Your task to perform on an android device: Open Google Chrome Image 0: 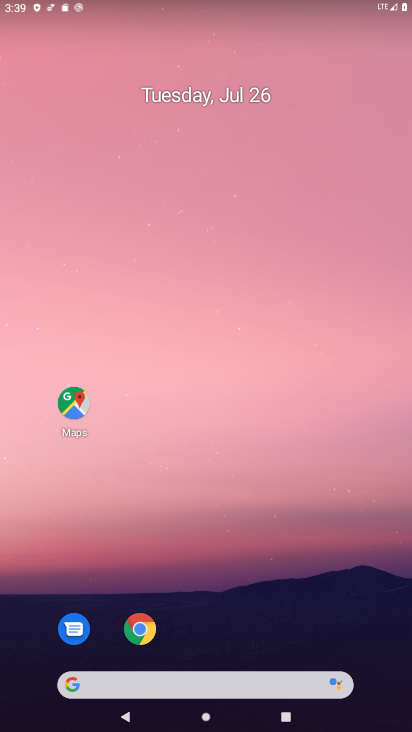
Step 0: click (144, 627)
Your task to perform on an android device: Open Google Chrome Image 1: 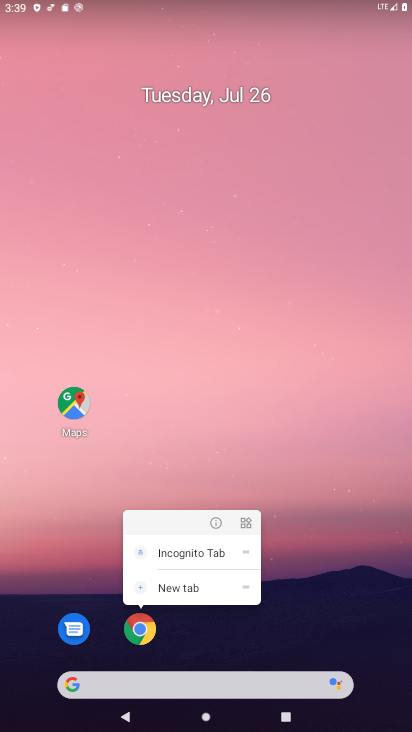
Step 1: click (141, 628)
Your task to perform on an android device: Open Google Chrome Image 2: 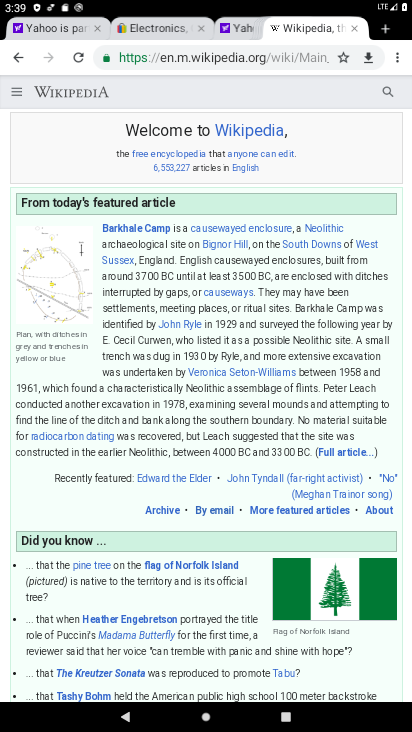
Step 2: task complete